Your task to perform on an android device: create a new album in the google photos Image 0: 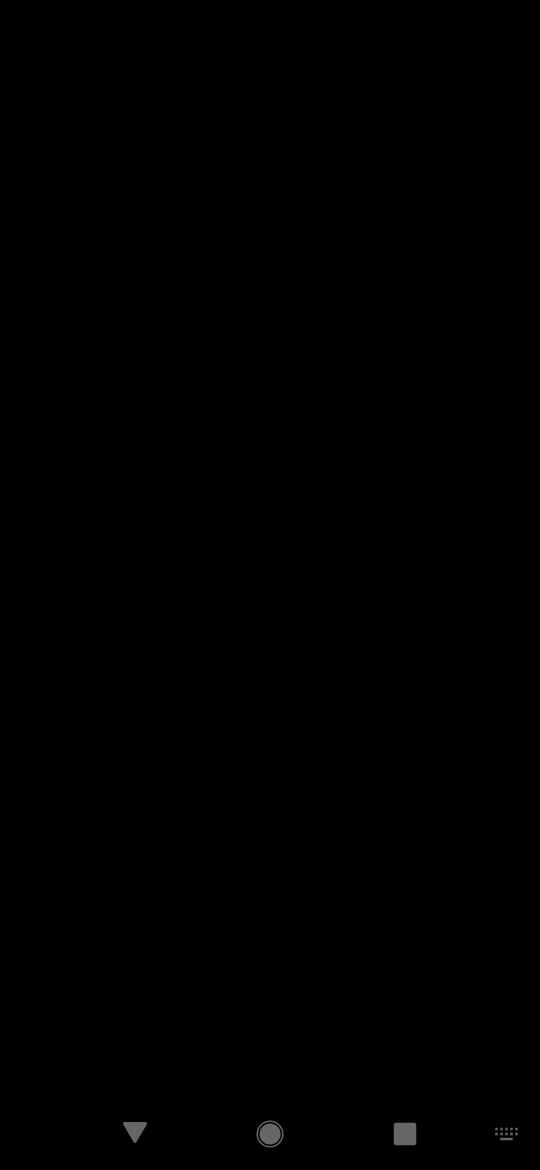
Step 0: press home button
Your task to perform on an android device: create a new album in the google photos Image 1: 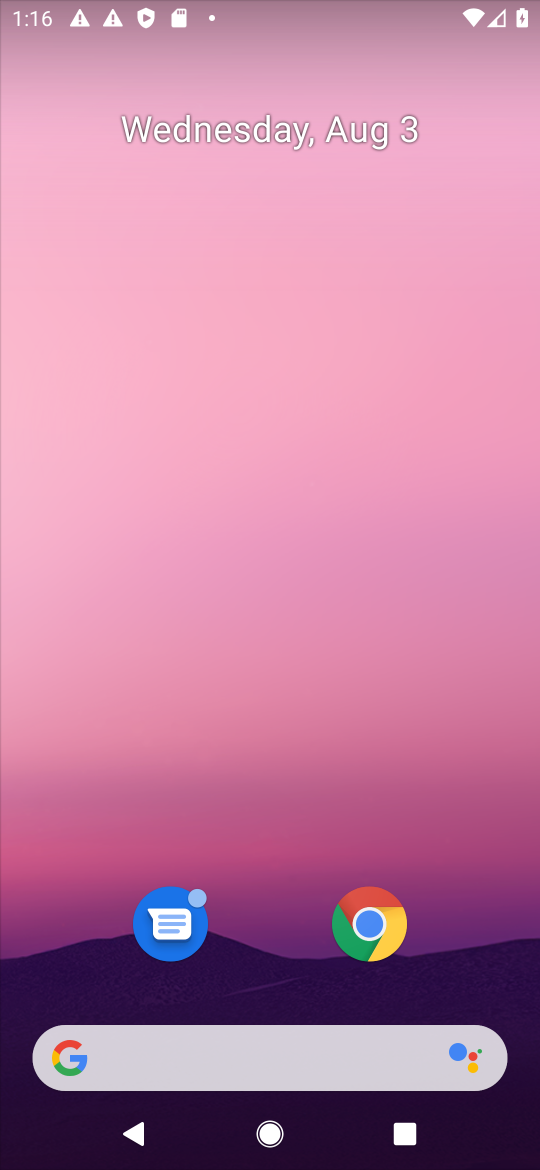
Step 1: drag from (271, 961) to (360, 19)
Your task to perform on an android device: create a new album in the google photos Image 2: 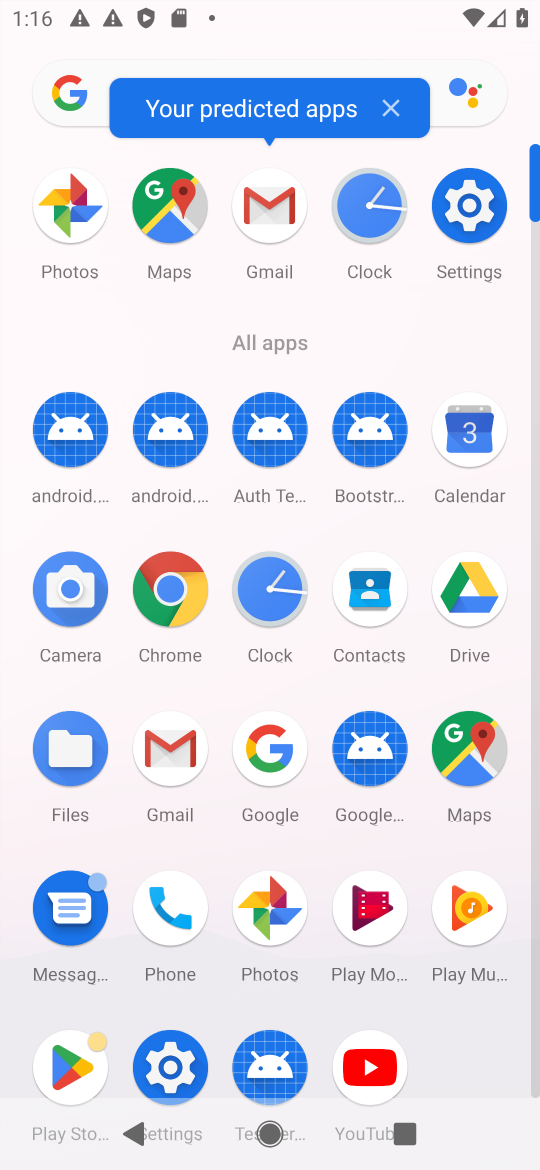
Step 2: click (264, 897)
Your task to perform on an android device: create a new album in the google photos Image 3: 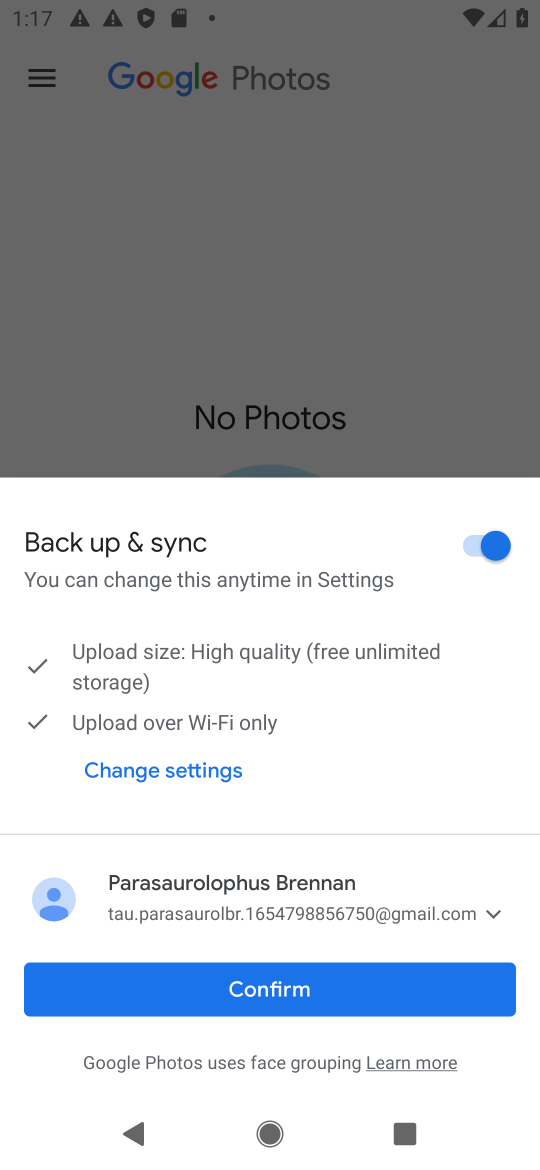
Step 3: click (288, 982)
Your task to perform on an android device: create a new album in the google photos Image 4: 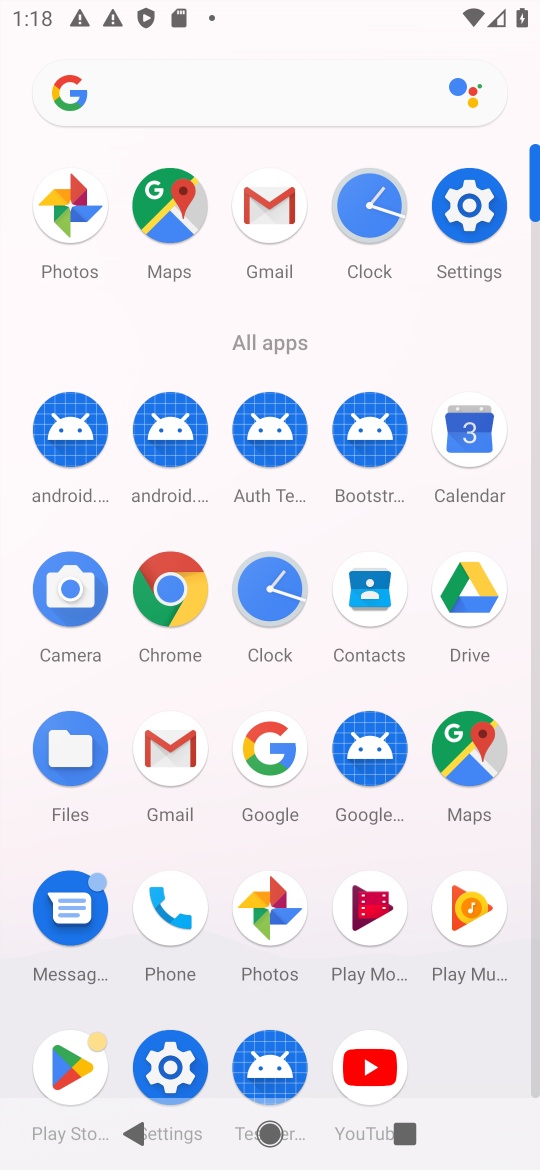
Step 4: click (268, 887)
Your task to perform on an android device: create a new album in the google photos Image 5: 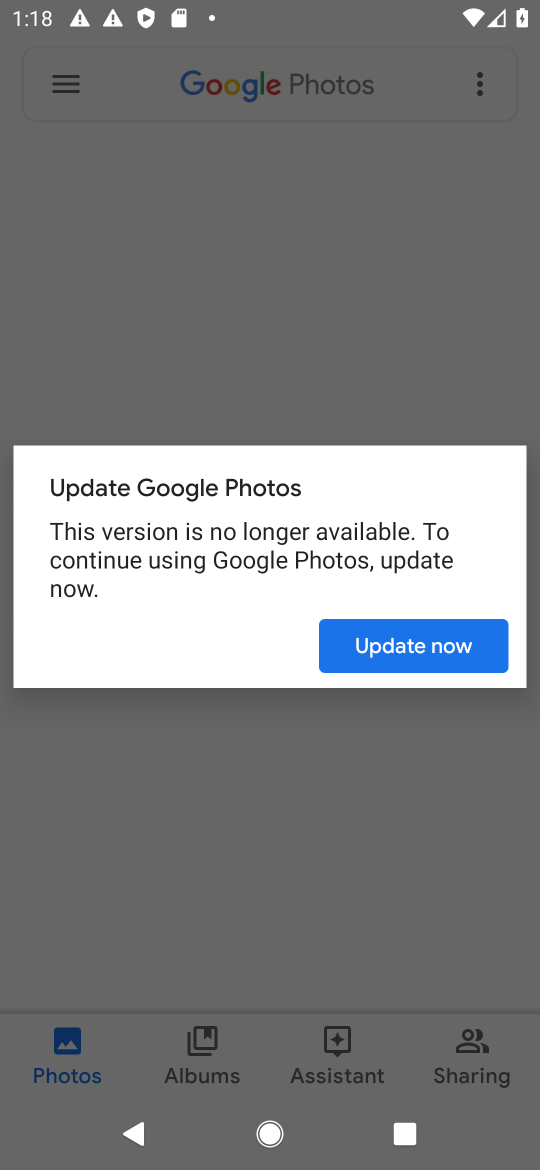
Step 5: click (409, 645)
Your task to perform on an android device: create a new album in the google photos Image 6: 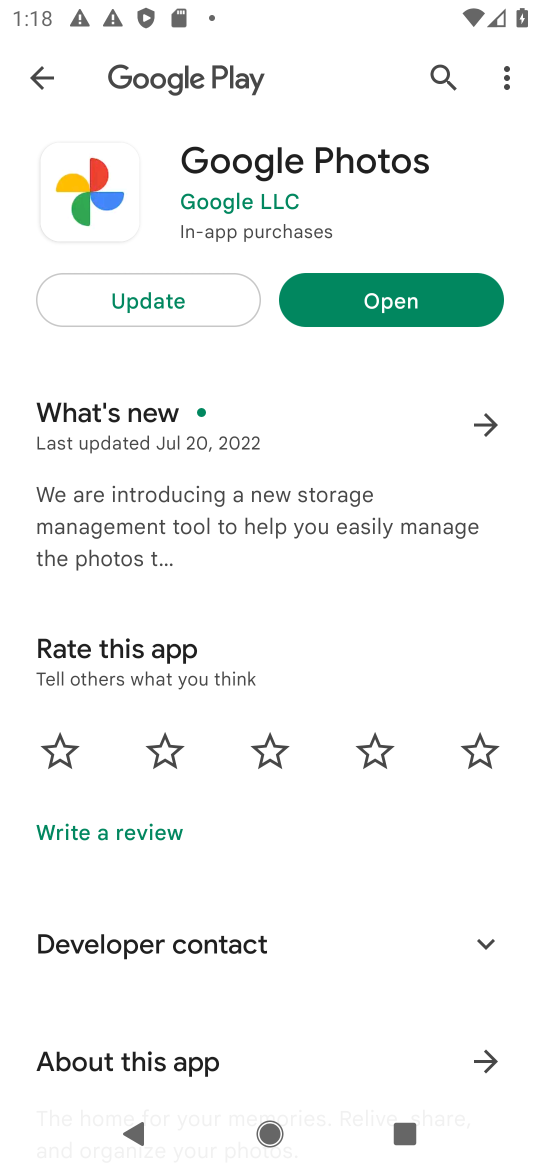
Step 6: click (134, 303)
Your task to perform on an android device: create a new album in the google photos Image 7: 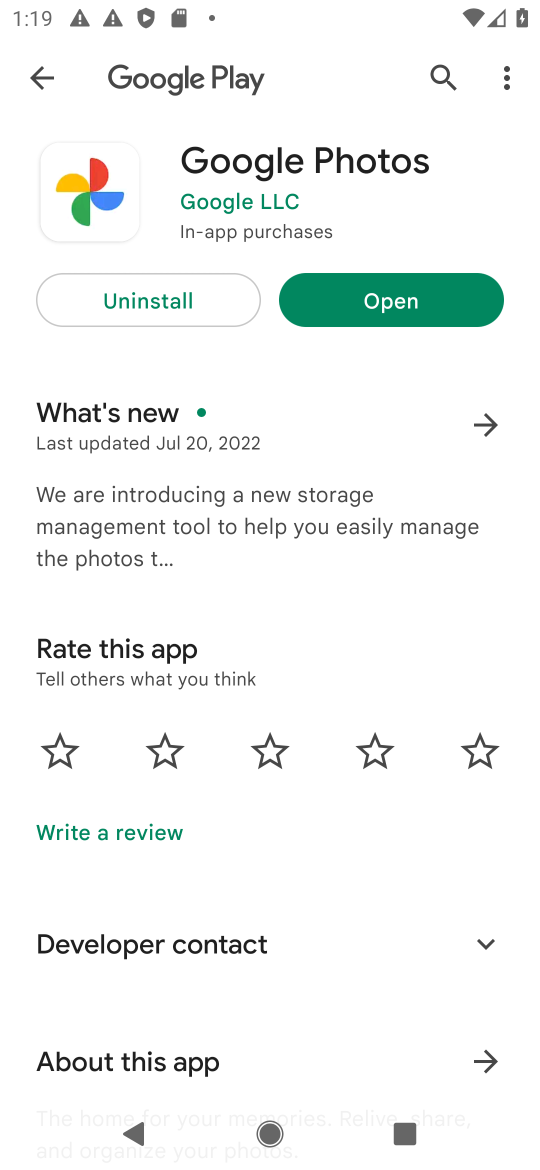
Step 7: click (381, 303)
Your task to perform on an android device: create a new album in the google photos Image 8: 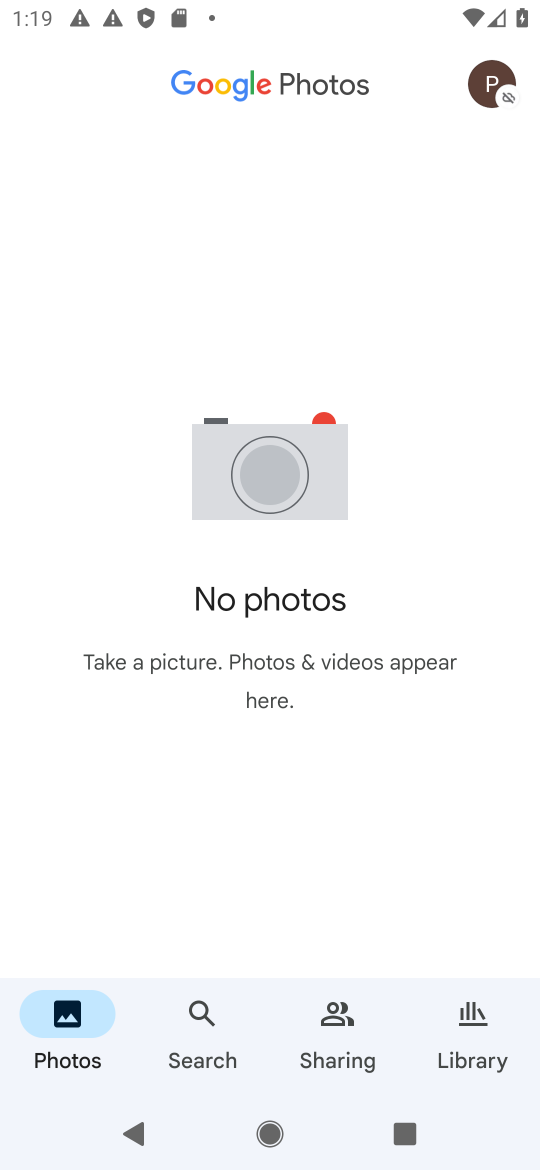
Step 8: click (338, 1022)
Your task to perform on an android device: create a new album in the google photos Image 9: 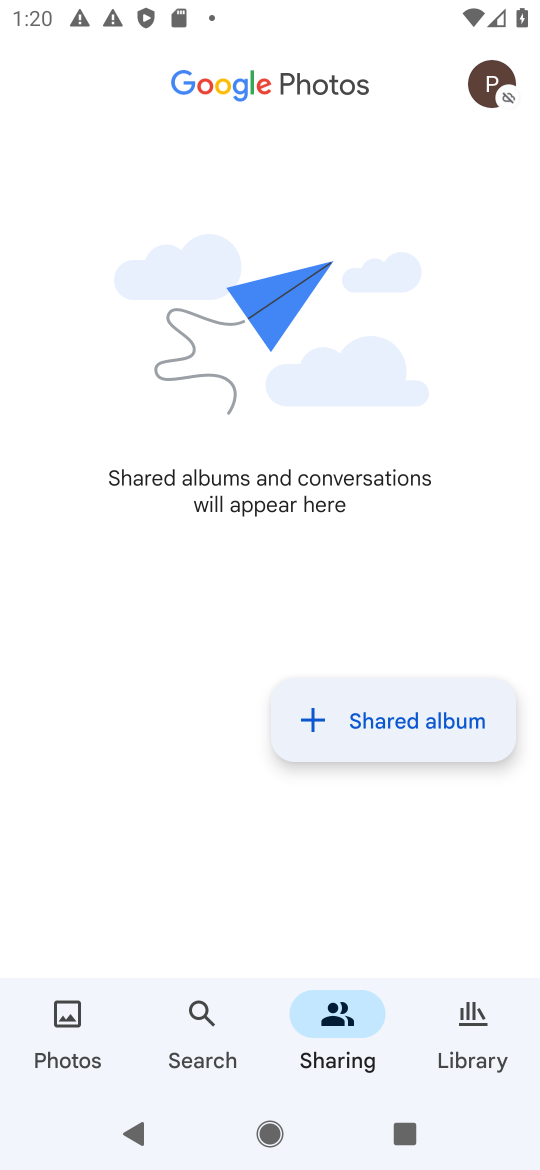
Step 9: click (317, 728)
Your task to perform on an android device: create a new album in the google photos Image 10: 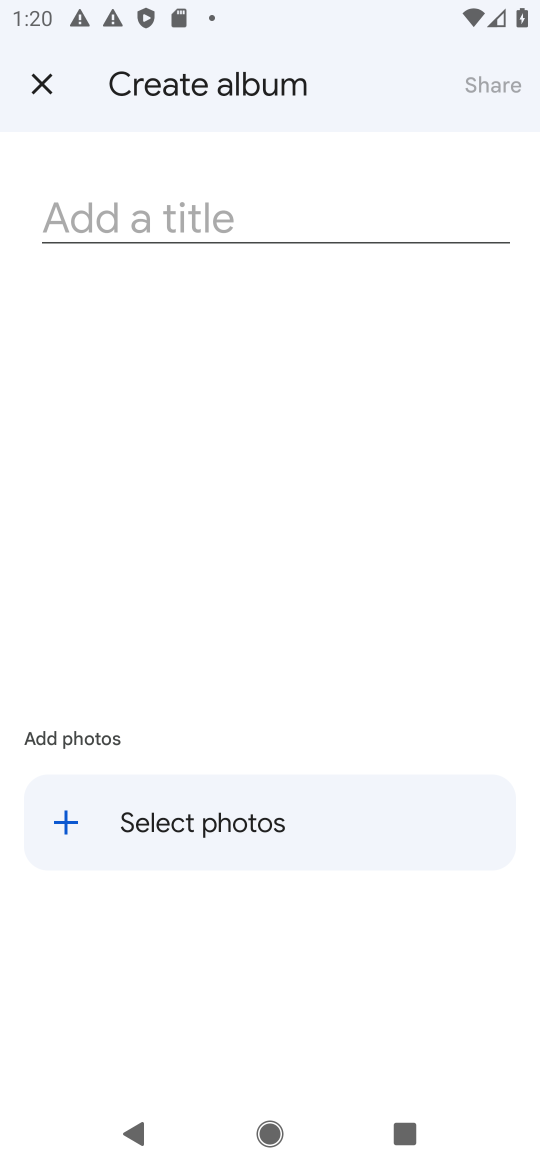
Step 10: click (49, 823)
Your task to perform on an android device: create a new album in the google photos Image 11: 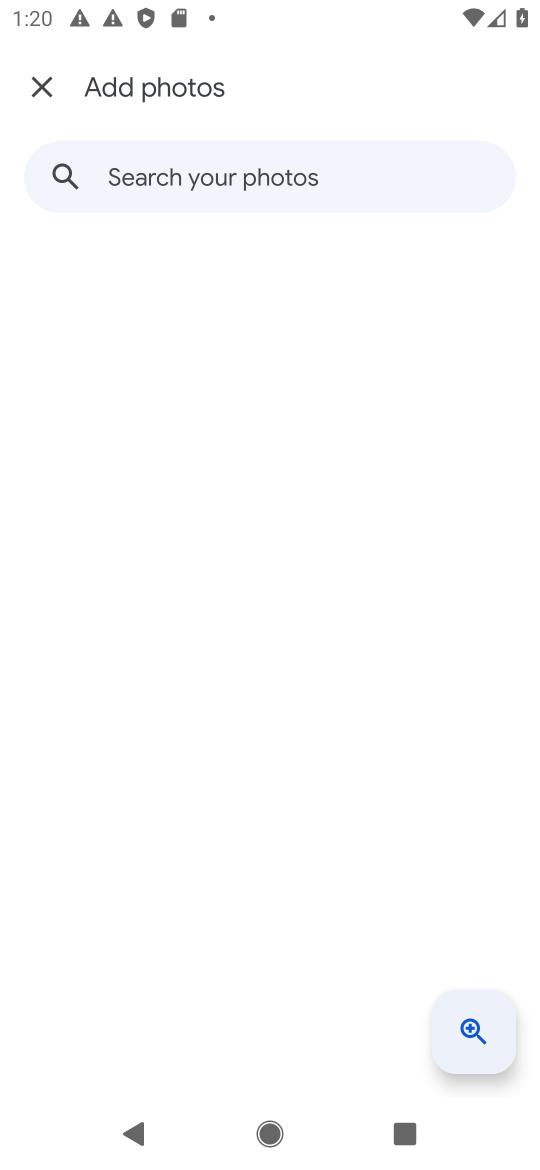
Step 11: task complete